Your task to perform on an android device: create a new album in the google photos Image 0: 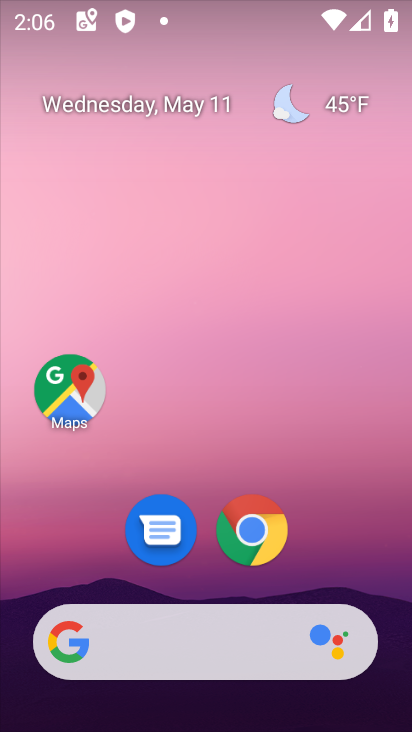
Step 0: drag from (220, 280) to (175, 142)
Your task to perform on an android device: create a new album in the google photos Image 1: 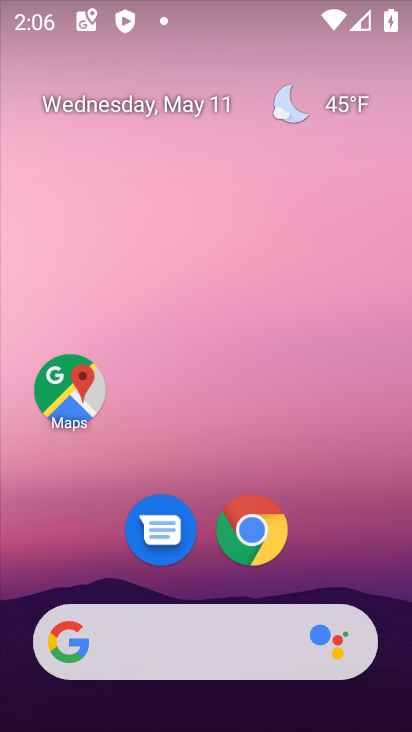
Step 1: drag from (330, 465) to (192, 152)
Your task to perform on an android device: create a new album in the google photos Image 2: 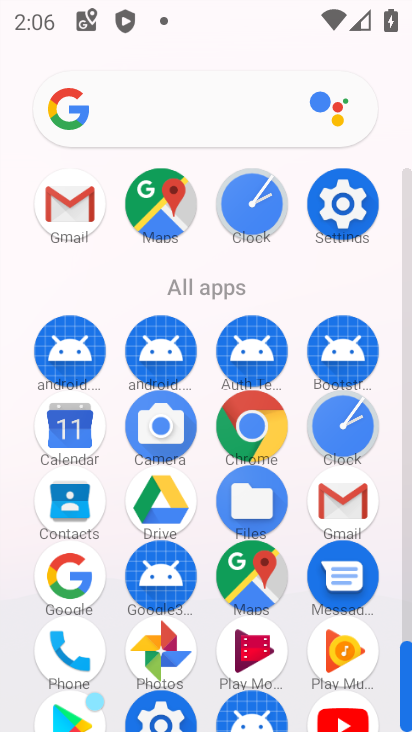
Step 2: click (151, 657)
Your task to perform on an android device: create a new album in the google photos Image 3: 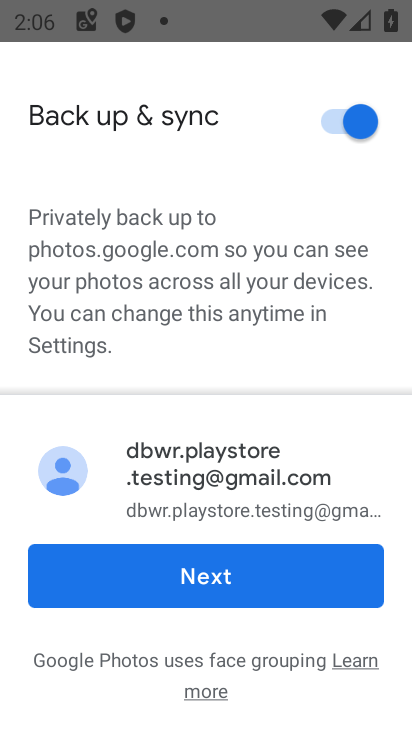
Step 3: click (208, 574)
Your task to perform on an android device: create a new album in the google photos Image 4: 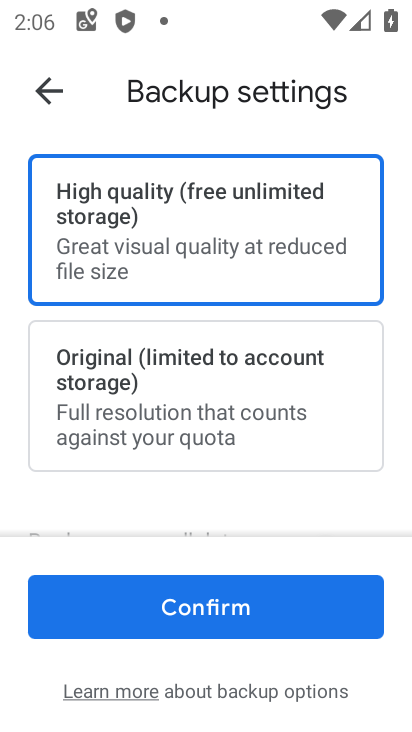
Step 4: click (224, 611)
Your task to perform on an android device: create a new album in the google photos Image 5: 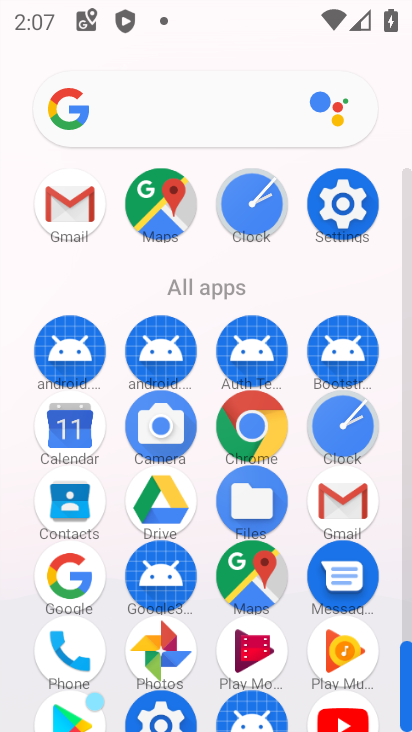
Step 5: click (166, 654)
Your task to perform on an android device: create a new album in the google photos Image 6: 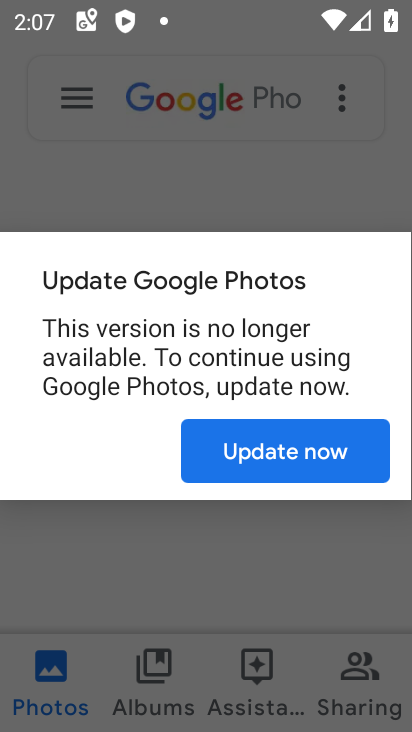
Step 6: click (197, 557)
Your task to perform on an android device: create a new album in the google photos Image 7: 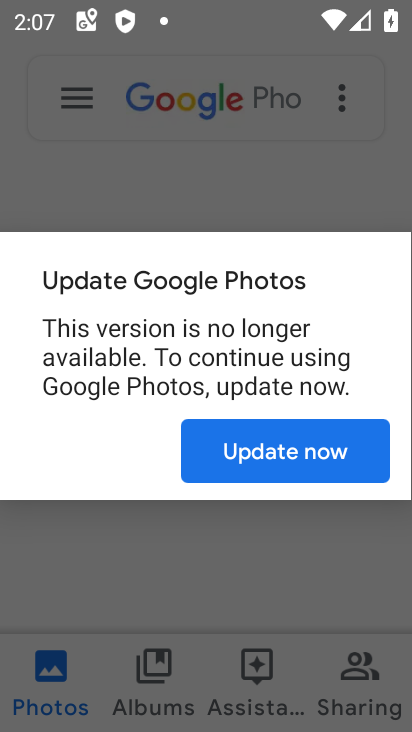
Step 7: click (279, 449)
Your task to perform on an android device: create a new album in the google photos Image 8: 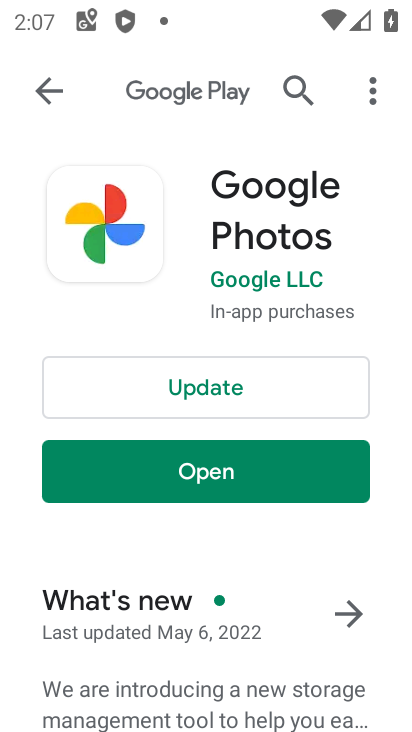
Step 8: click (208, 398)
Your task to perform on an android device: create a new album in the google photos Image 9: 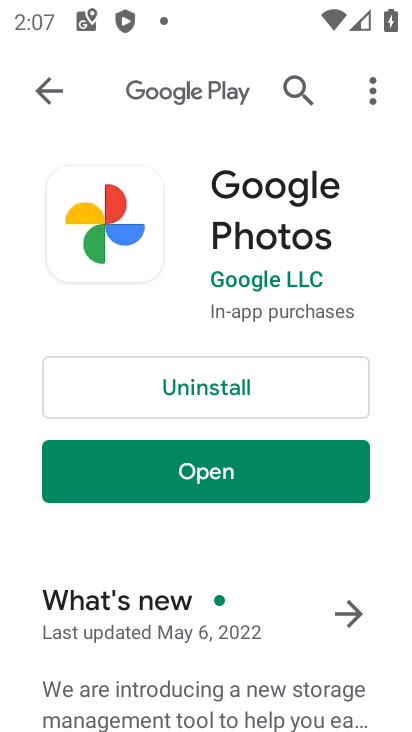
Step 9: click (205, 476)
Your task to perform on an android device: create a new album in the google photos Image 10: 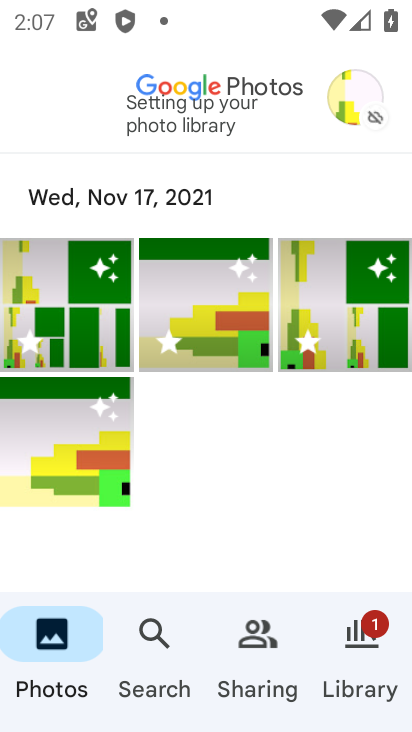
Step 10: click (353, 119)
Your task to perform on an android device: create a new album in the google photos Image 11: 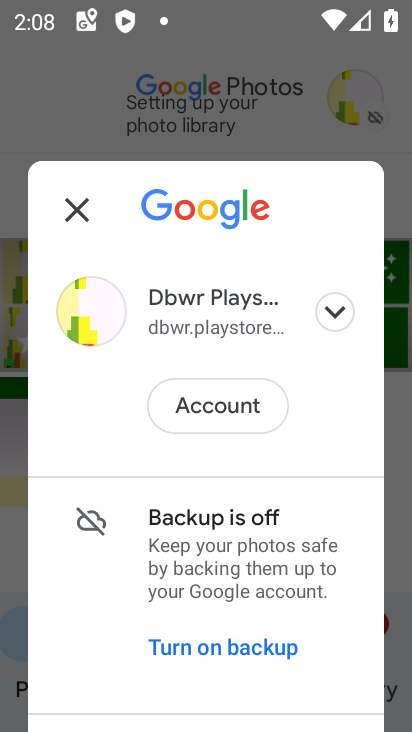
Step 11: click (353, 119)
Your task to perform on an android device: create a new album in the google photos Image 12: 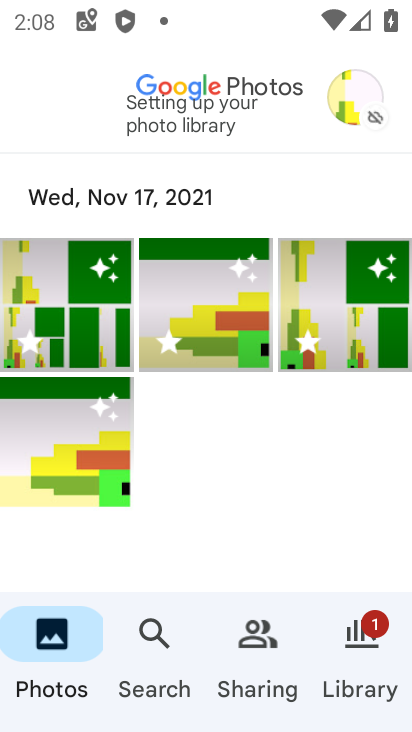
Step 12: drag from (196, 488) to (165, 154)
Your task to perform on an android device: create a new album in the google photos Image 13: 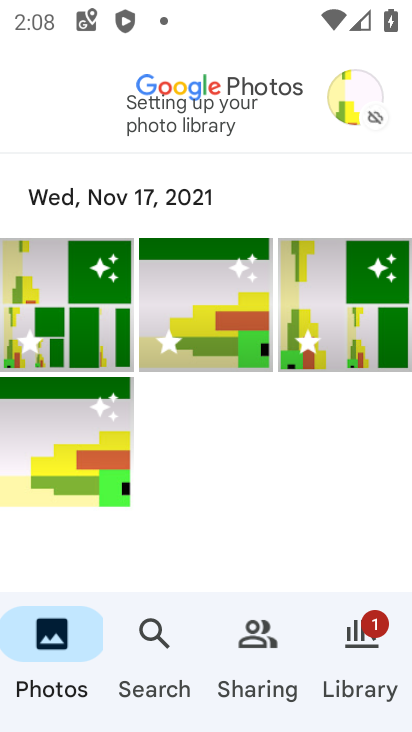
Step 13: click (193, 512)
Your task to perform on an android device: create a new album in the google photos Image 14: 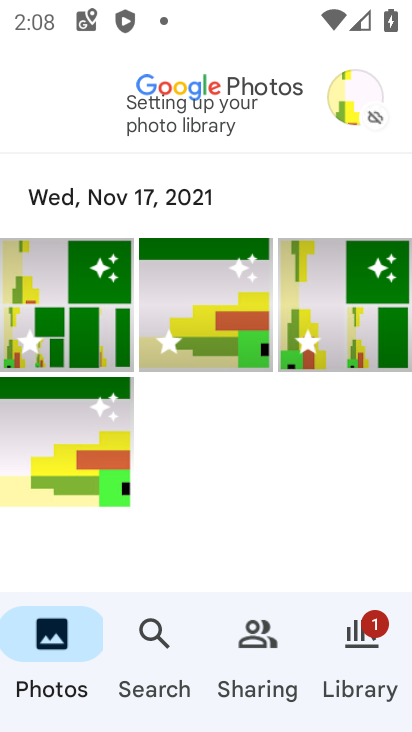
Step 14: task complete